Your task to perform on an android device: Open calendar and show me the first week of next month Image 0: 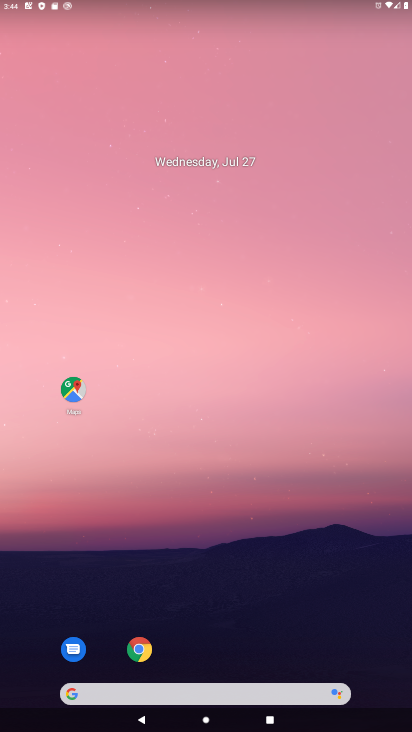
Step 0: drag from (384, 665) to (312, 103)
Your task to perform on an android device: Open calendar and show me the first week of next month Image 1: 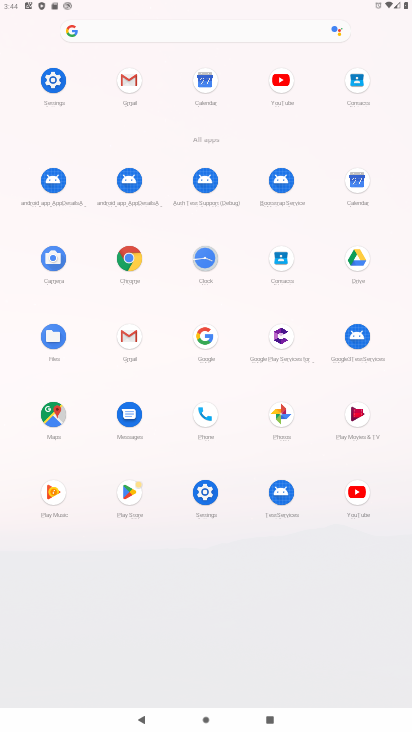
Step 1: click (355, 182)
Your task to perform on an android device: Open calendar and show me the first week of next month Image 2: 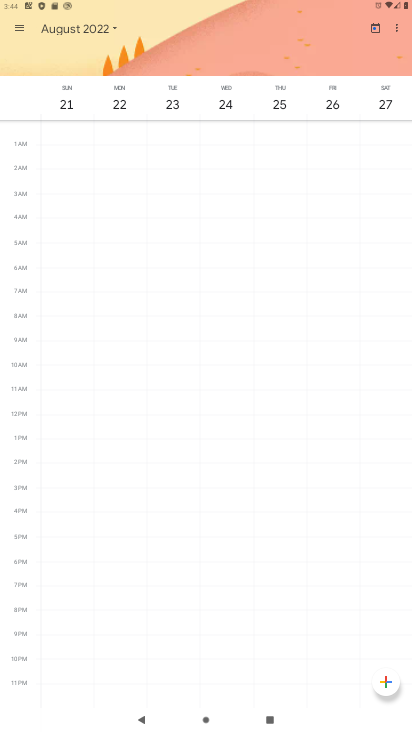
Step 2: click (113, 26)
Your task to perform on an android device: Open calendar and show me the first week of next month Image 3: 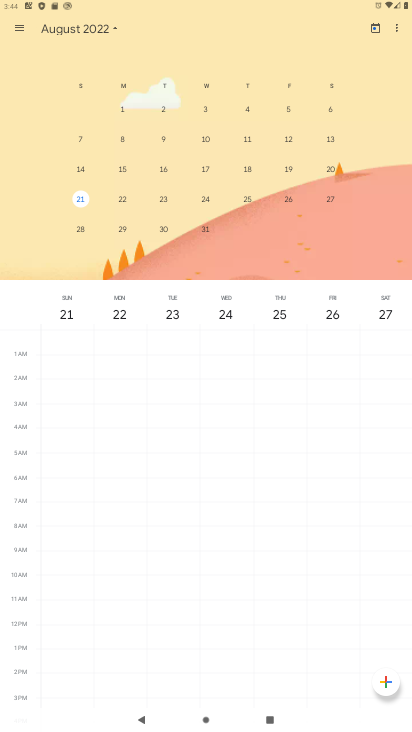
Step 3: click (82, 139)
Your task to perform on an android device: Open calendar and show me the first week of next month Image 4: 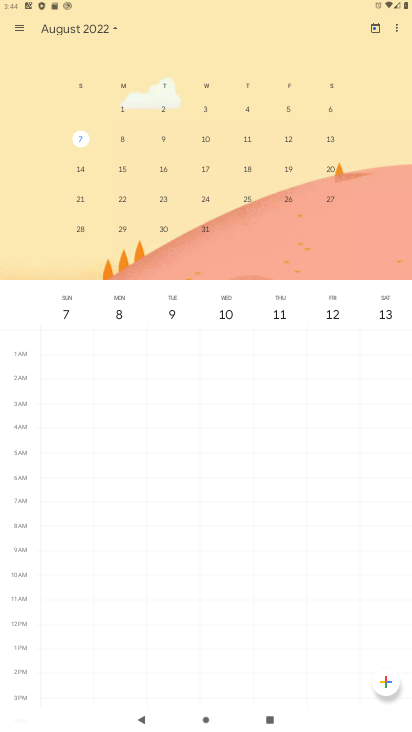
Step 4: task complete